Your task to perform on an android device: Go to Android settings Image 0: 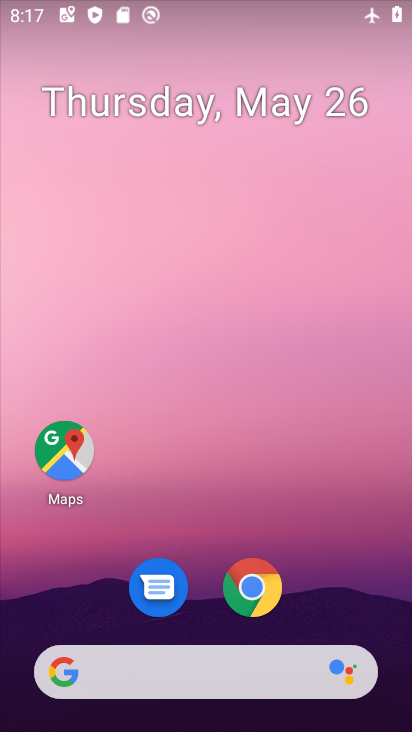
Step 0: drag from (208, 628) to (206, 221)
Your task to perform on an android device: Go to Android settings Image 1: 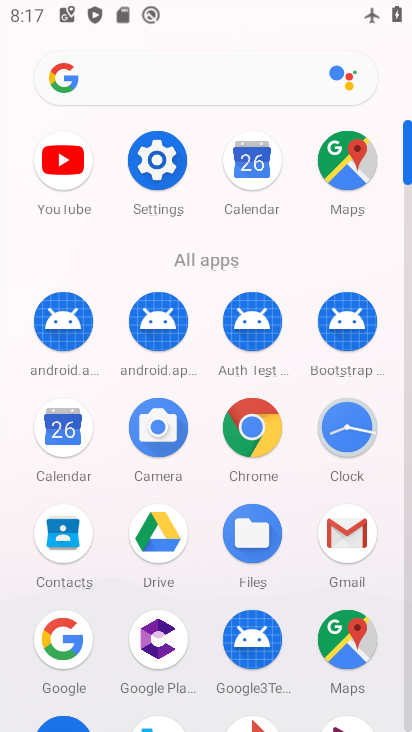
Step 1: click (176, 181)
Your task to perform on an android device: Go to Android settings Image 2: 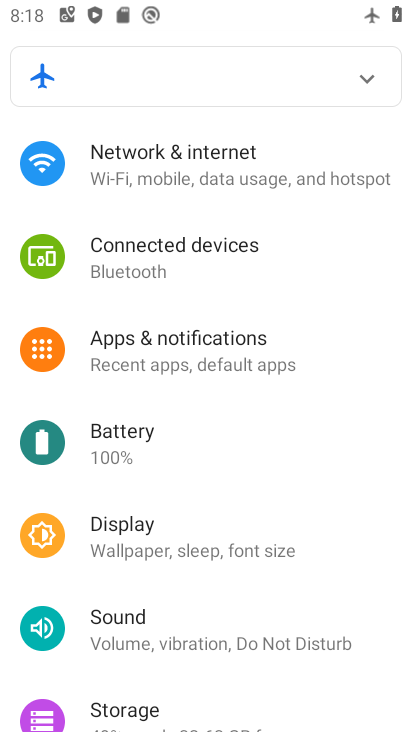
Step 2: task complete